Your task to perform on an android device: change keyboard looks Image 0: 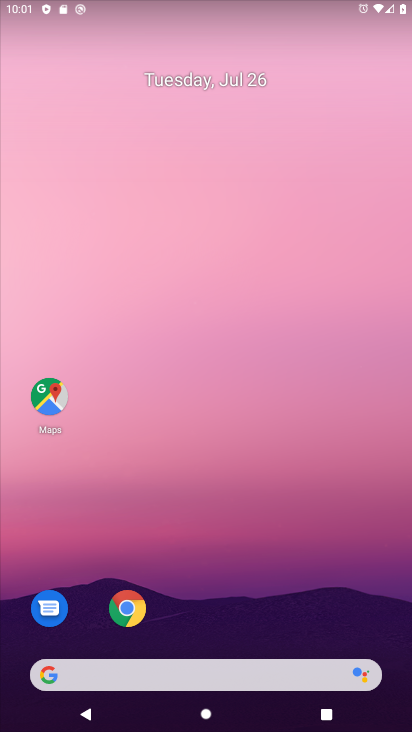
Step 0: drag from (239, 724) to (239, 98)
Your task to perform on an android device: change keyboard looks Image 1: 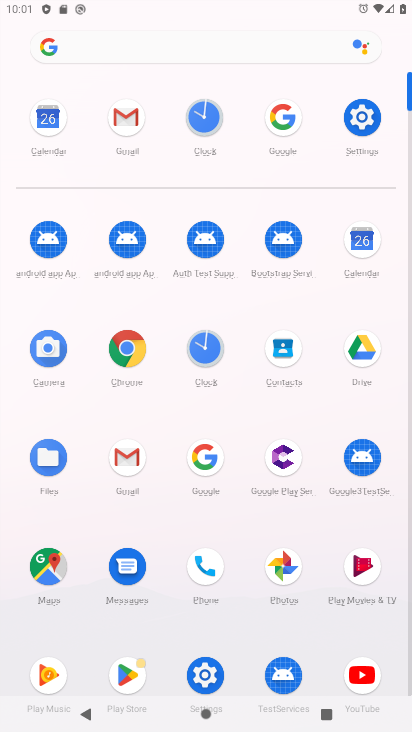
Step 1: click (374, 115)
Your task to perform on an android device: change keyboard looks Image 2: 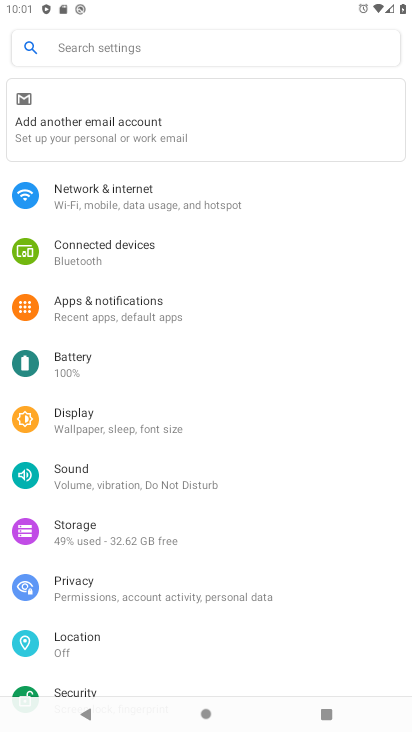
Step 2: drag from (171, 670) to (171, 262)
Your task to perform on an android device: change keyboard looks Image 3: 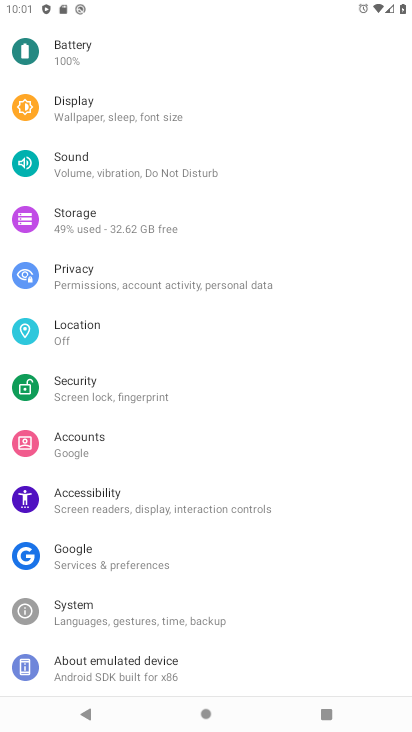
Step 3: drag from (121, 653) to (121, 290)
Your task to perform on an android device: change keyboard looks Image 4: 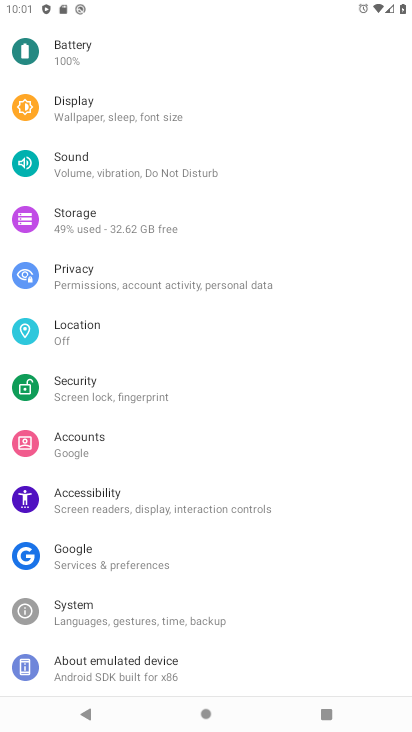
Step 4: click (91, 620)
Your task to perform on an android device: change keyboard looks Image 5: 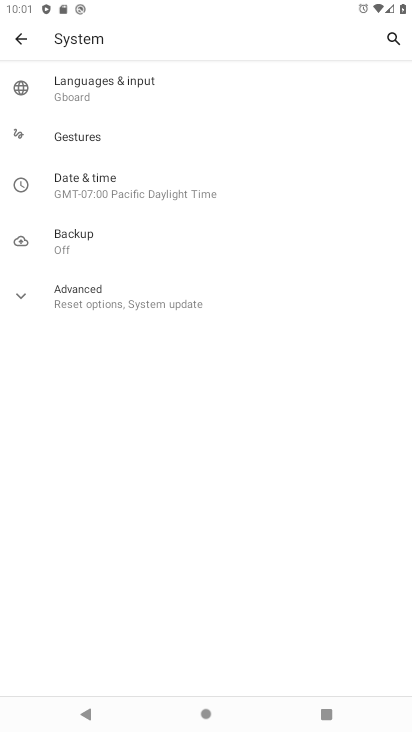
Step 5: click (96, 85)
Your task to perform on an android device: change keyboard looks Image 6: 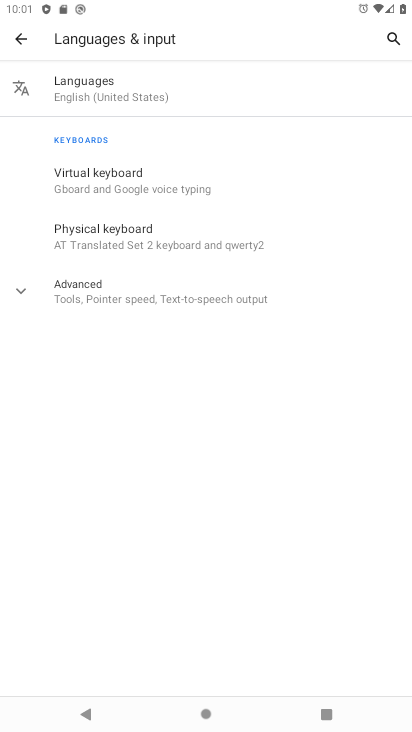
Step 6: click (89, 172)
Your task to perform on an android device: change keyboard looks Image 7: 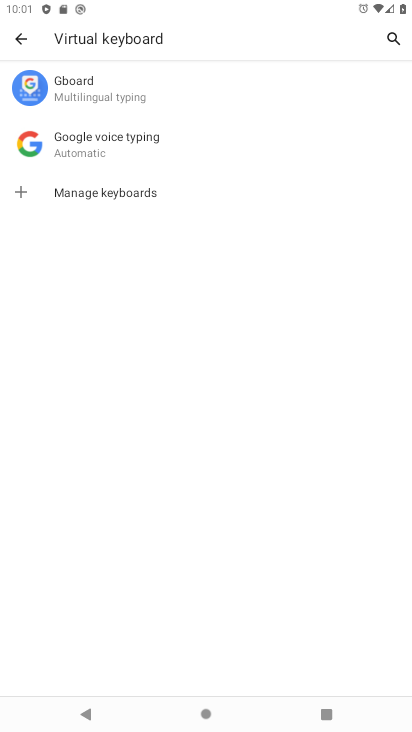
Step 7: click (76, 89)
Your task to perform on an android device: change keyboard looks Image 8: 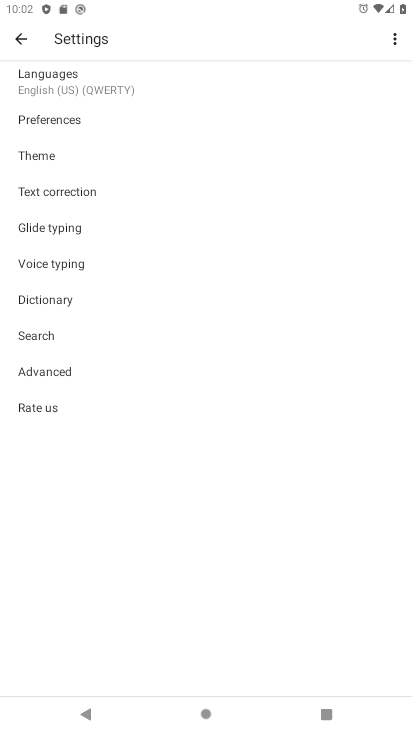
Step 8: click (38, 161)
Your task to perform on an android device: change keyboard looks Image 9: 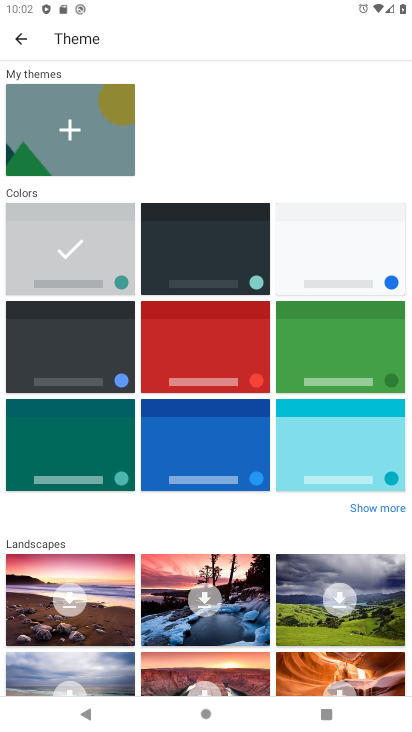
Step 9: click (217, 261)
Your task to perform on an android device: change keyboard looks Image 10: 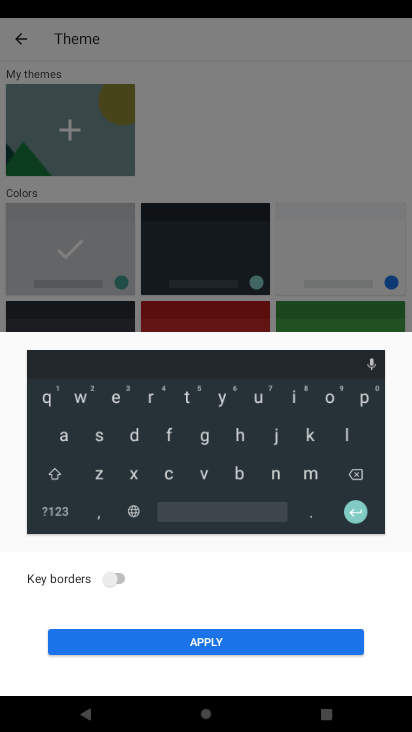
Step 10: click (120, 577)
Your task to perform on an android device: change keyboard looks Image 11: 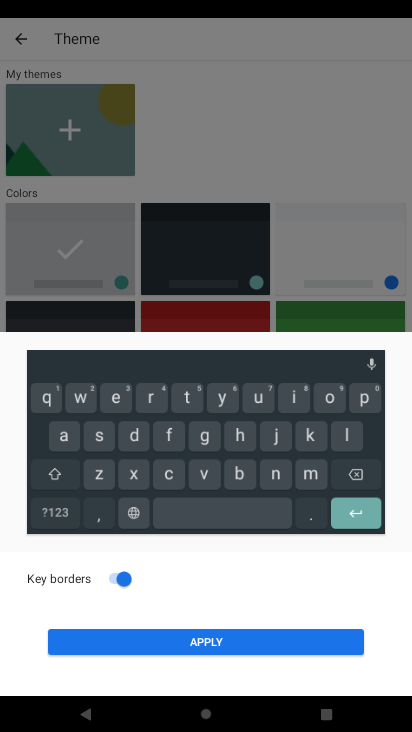
Step 11: click (210, 640)
Your task to perform on an android device: change keyboard looks Image 12: 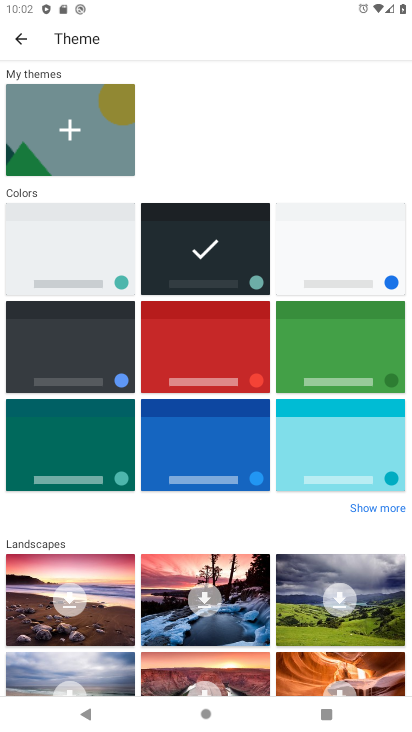
Step 12: task complete